Your task to perform on an android device: turn on sleep mode Image 0: 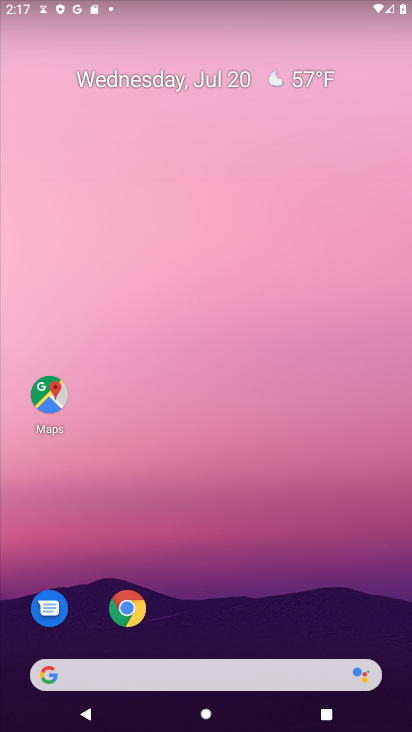
Step 0: drag from (182, 614) to (215, 29)
Your task to perform on an android device: turn on sleep mode Image 1: 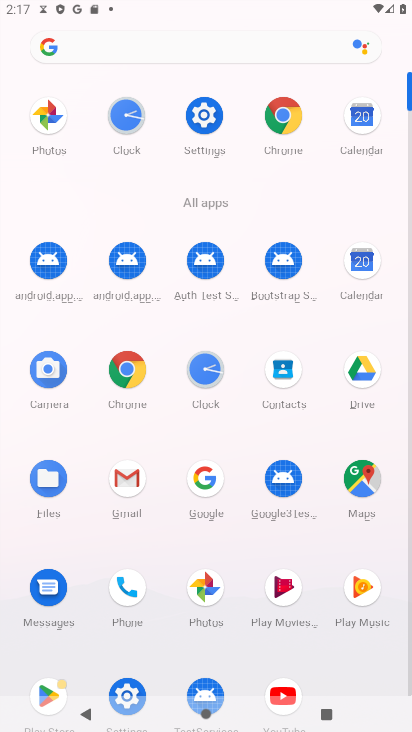
Step 1: task complete